Your task to perform on an android device: Go to Reddit.com Image 0: 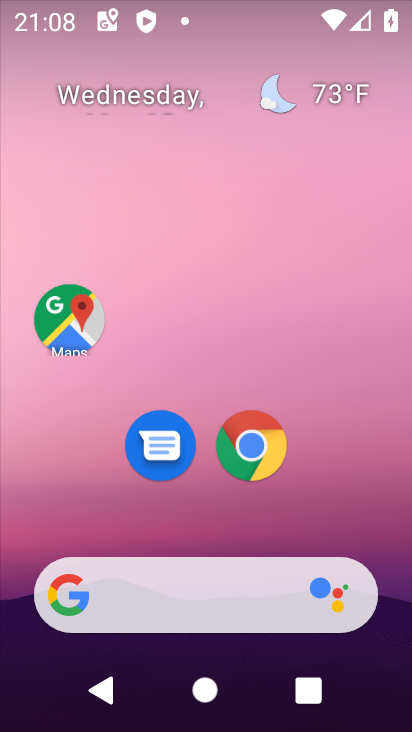
Step 0: click (274, 450)
Your task to perform on an android device: Go to Reddit.com Image 1: 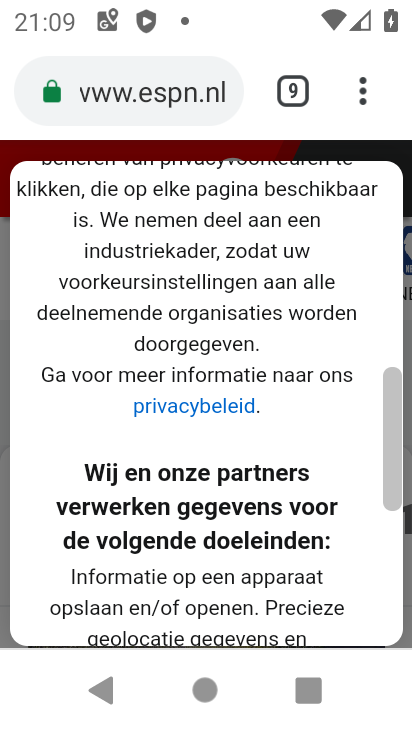
Step 1: click (347, 82)
Your task to perform on an android device: Go to Reddit.com Image 2: 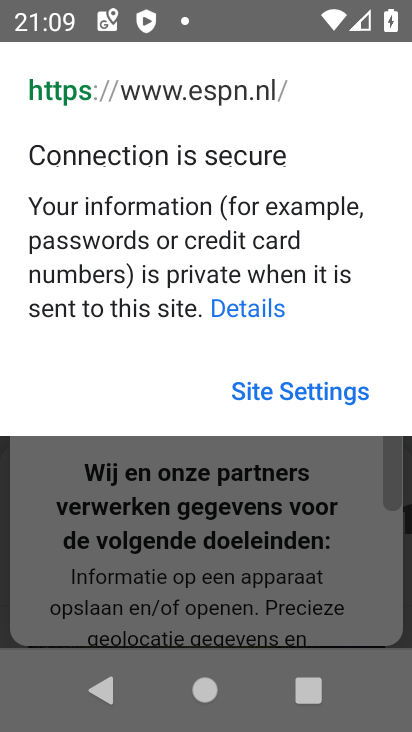
Step 2: press back button
Your task to perform on an android device: Go to Reddit.com Image 3: 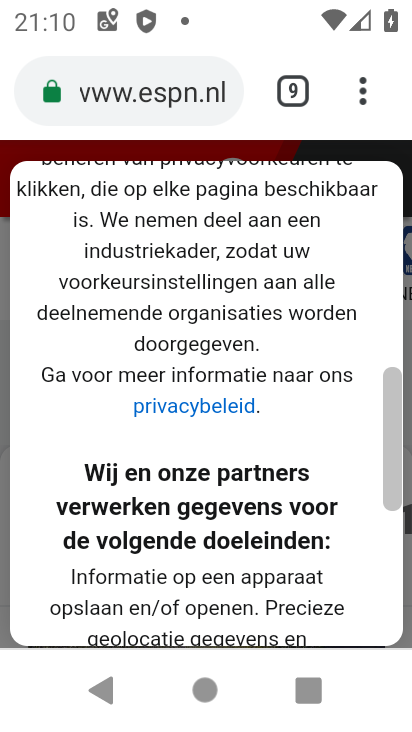
Step 3: click (366, 82)
Your task to perform on an android device: Go to Reddit.com Image 4: 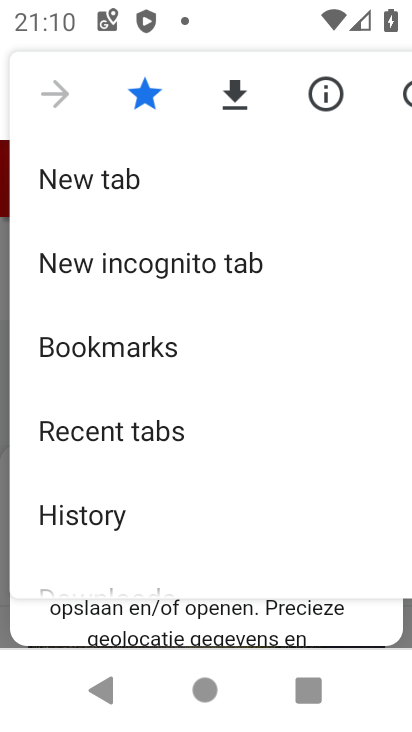
Step 4: click (118, 172)
Your task to perform on an android device: Go to Reddit.com Image 5: 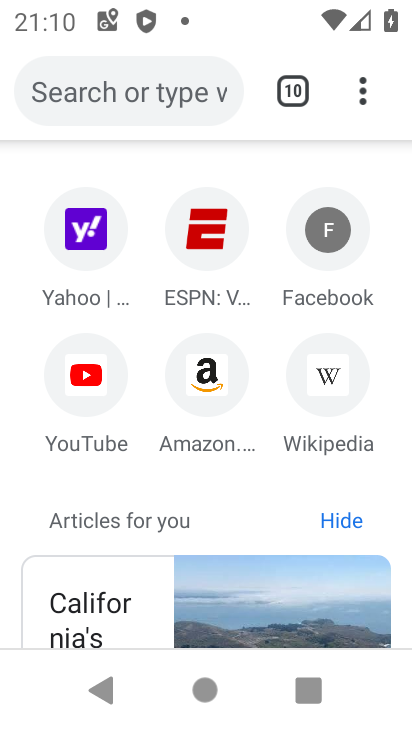
Step 5: click (170, 94)
Your task to perform on an android device: Go to Reddit.com Image 6: 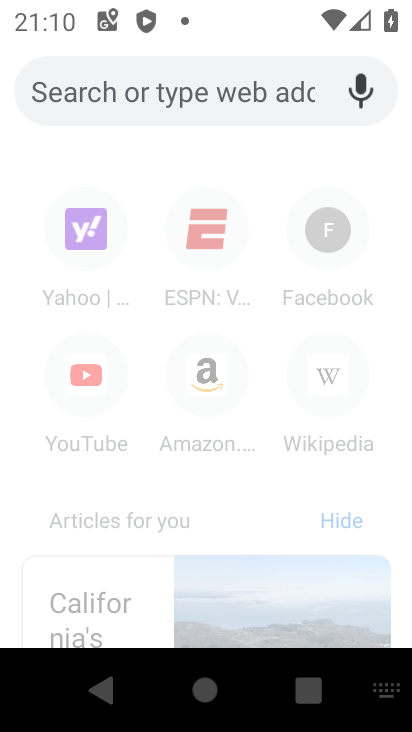
Step 6: type "Reddit.com"
Your task to perform on an android device: Go to Reddit.com Image 7: 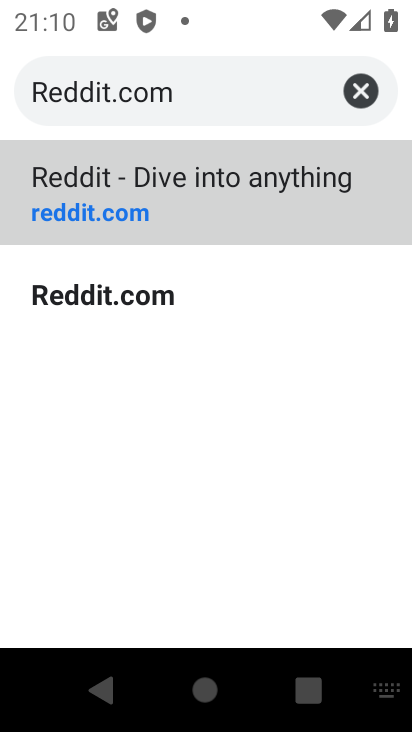
Step 7: click (77, 295)
Your task to perform on an android device: Go to Reddit.com Image 8: 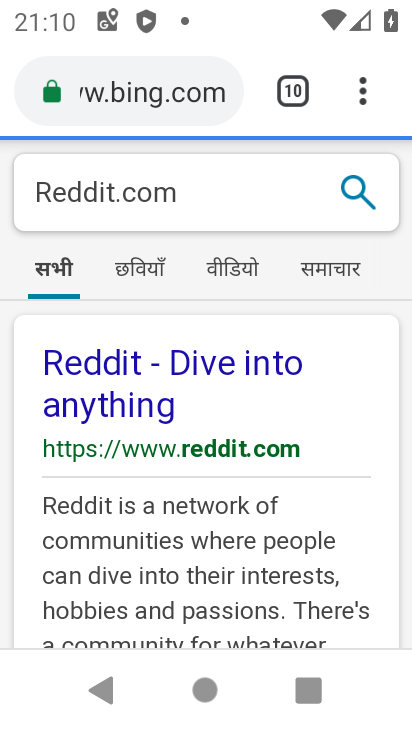
Step 8: task complete